Your task to perform on an android device: open the mobile data screen to see how much data has been used Image 0: 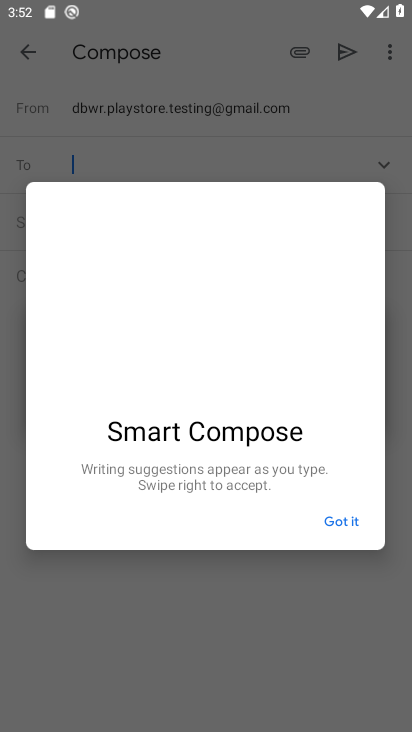
Step 0: press home button
Your task to perform on an android device: open the mobile data screen to see how much data has been used Image 1: 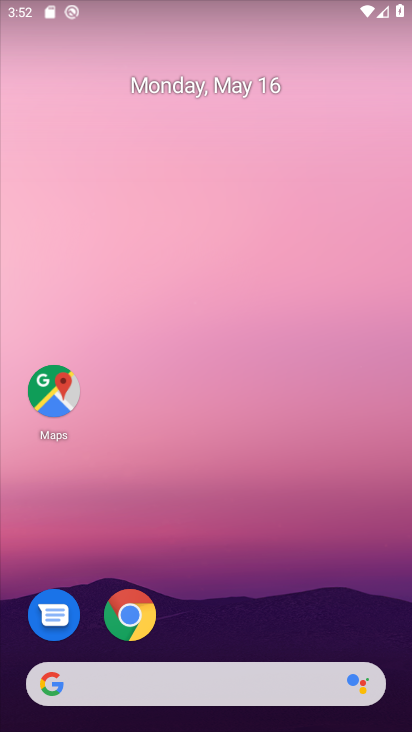
Step 1: drag from (205, 562) to (380, 16)
Your task to perform on an android device: open the mobile data screen to see how much data has been used Image 2: 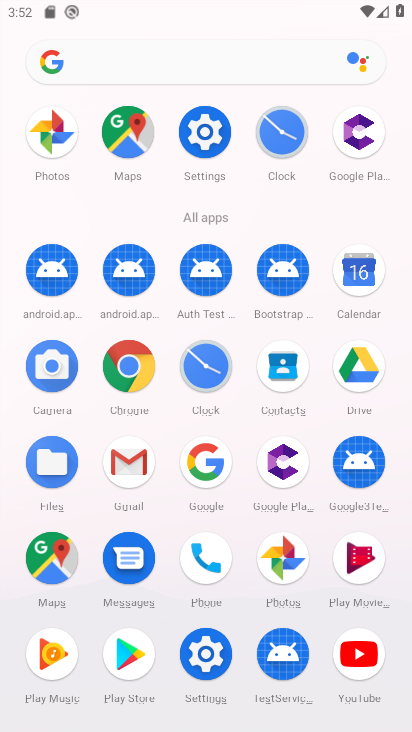
Step 2: click (209, 146)
Your task to perform on an android device: open the mobile data screen to see how much data has been used Image 3: 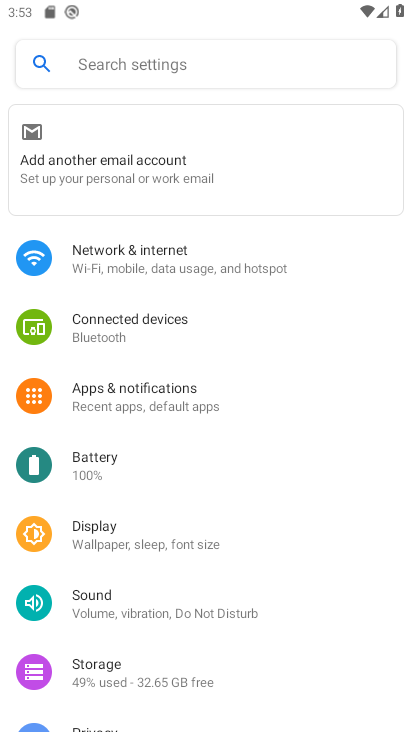
Step 3: click (137, 263)
Your task to perform on an android device: open the mobile data screen to see how much data has been used Image 4: 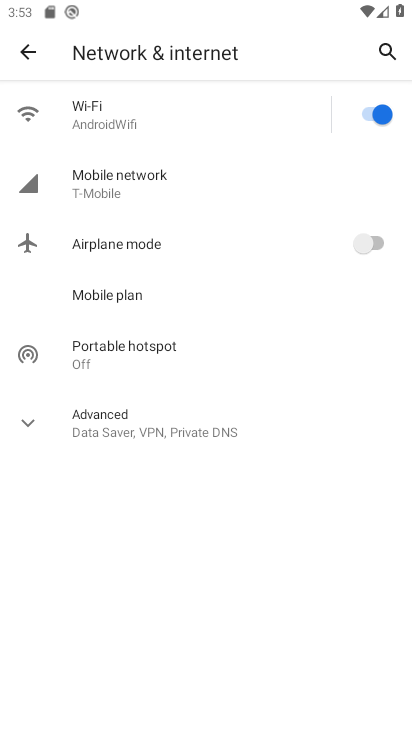
Step 4: click (149, 189)
Your task to perform on an android device: open the mobile data screen to see how much data has been used Image 5: 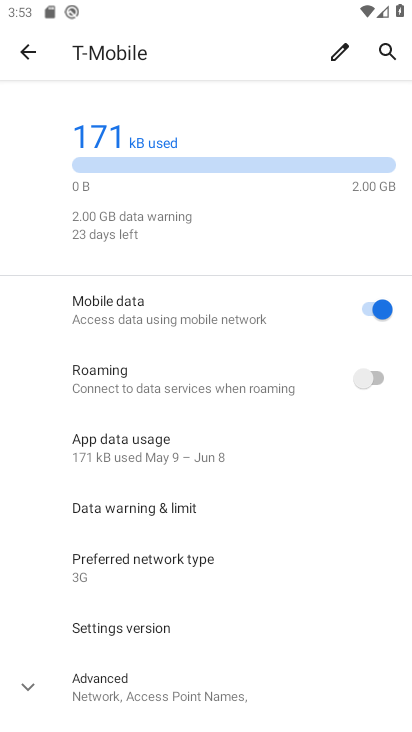
Step 5: task complete